Your task to perform on an android device: Search for pizza restaurants on Maps Image 0: 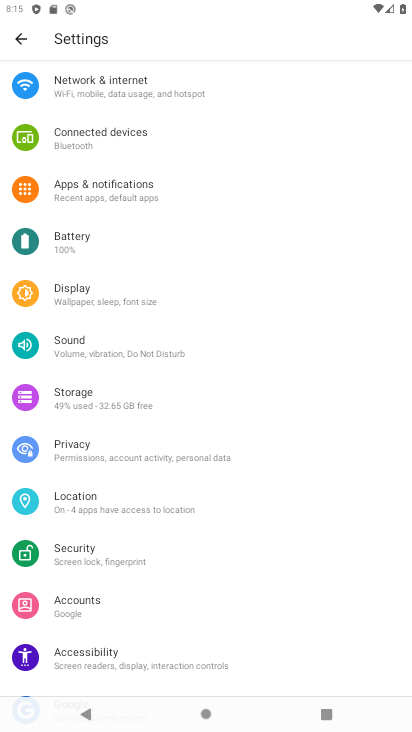
Step 0: press home button
Your task to perform on an android device: Search for pizza restaurants on Maps Image 1: 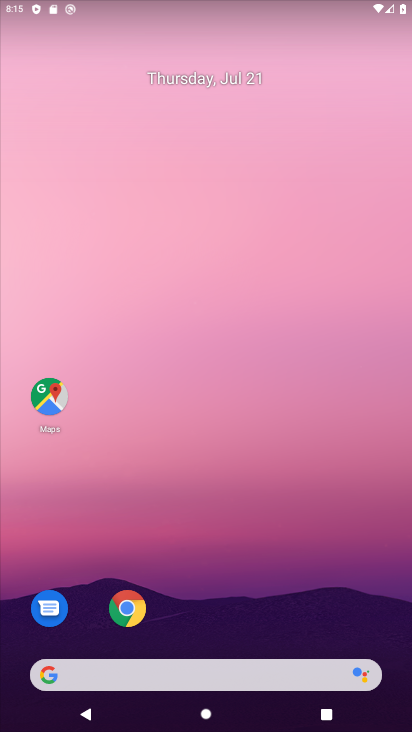
Step 1: click (41, 404)
Your task to perform on an android device: Search for pizza restaurants on Maps Image 2: 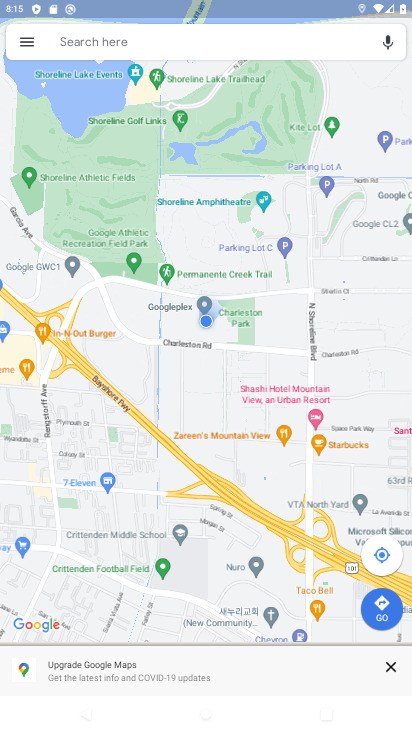
Step 2: click (77, 38)
Your task to perform on an android device: Search for pizza restaurants on Maps Image 3: 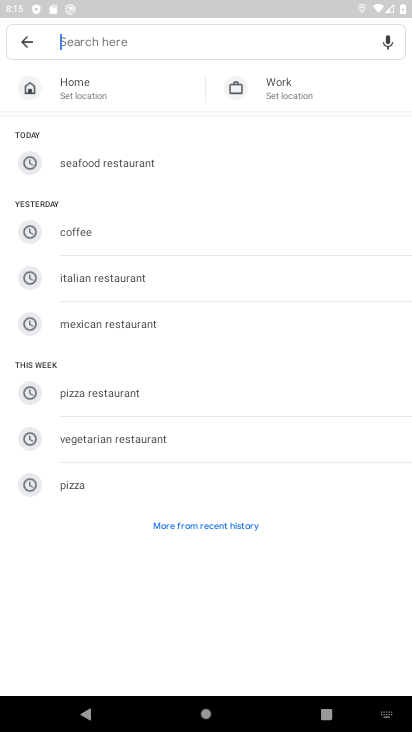
Step 3: click (118, 391)
Your task to perform on an android device: Search for pizza restaurants on Maps Image 4: 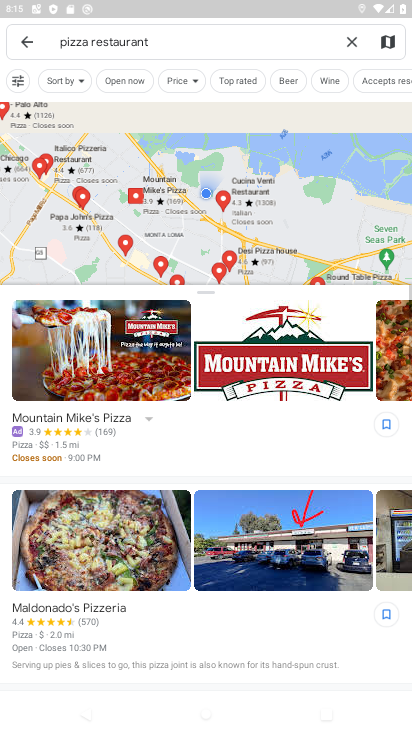
Step 4: task complete